Your task to perform on an android device: Go to network settings Image 0: 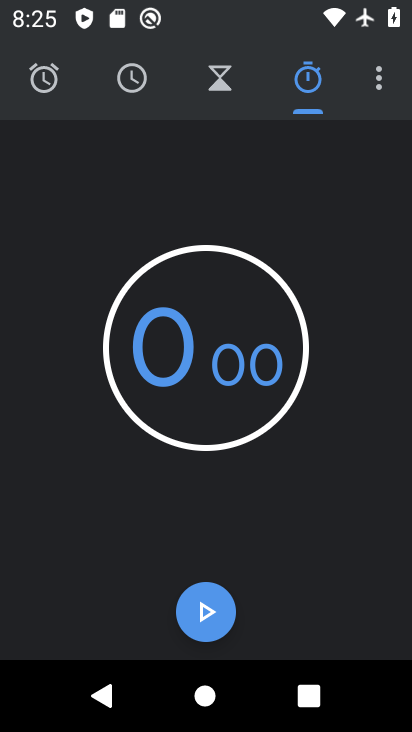
Step 0: press home button
Your task to perform on an android device: Go to network settings Image 1: 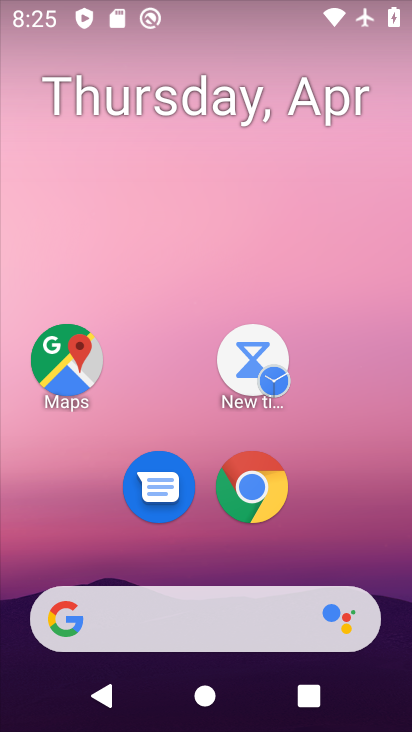
Step 1: drag from (336, 470) to (253, 198)
Your task to perform on an android device: Go to network settings Image 2: 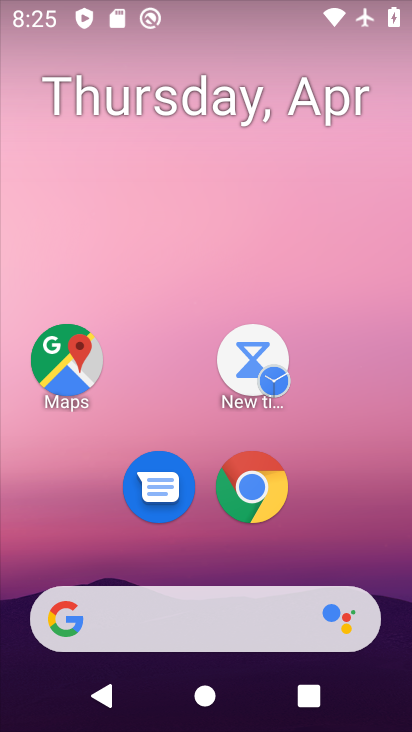
Step 2: drag from (346, 497) to (344, 82)
Your task to perform on an android device: Go to network settings Image 3: 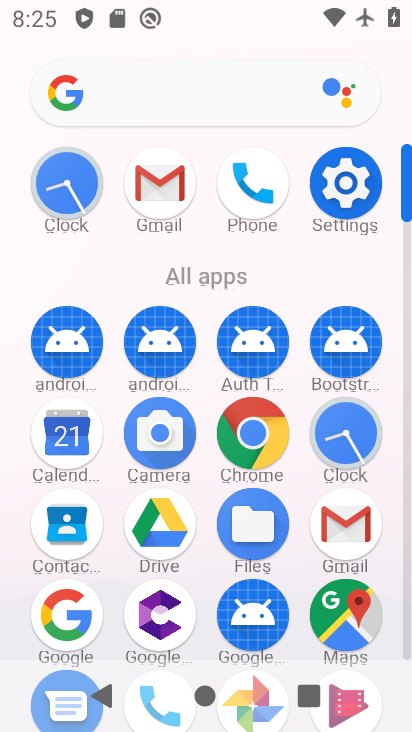
Step 3: click (338, 195)
Your task to perform on an android device: Go to network settings Image 4: 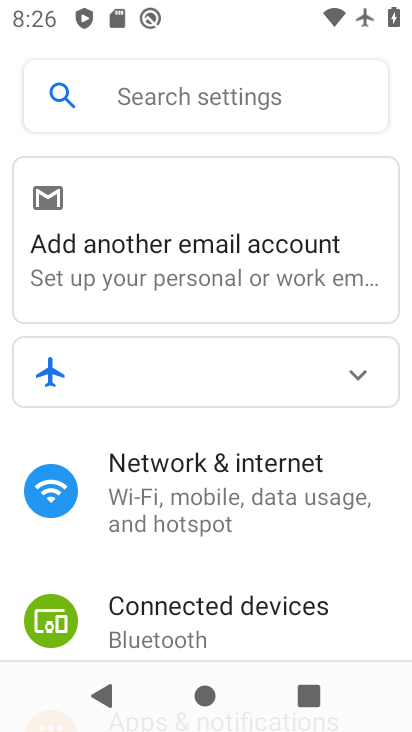
Step 4: click (165, 508)
Your task to perform on an android device: Go to network settings Image 5: 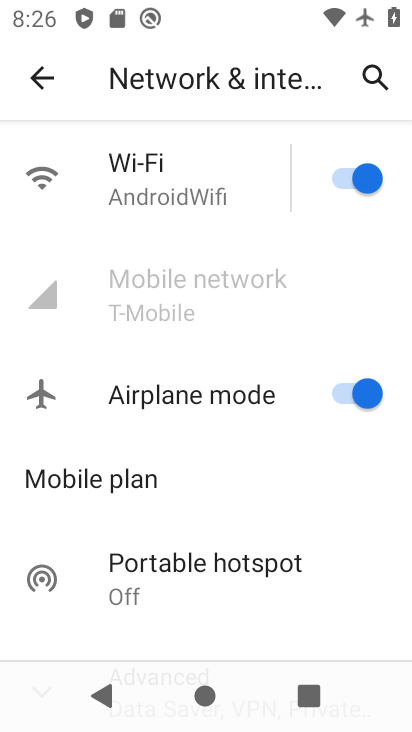
Step 5: task complete